Your task to perform on an android device: Open CNN.com Image 0: 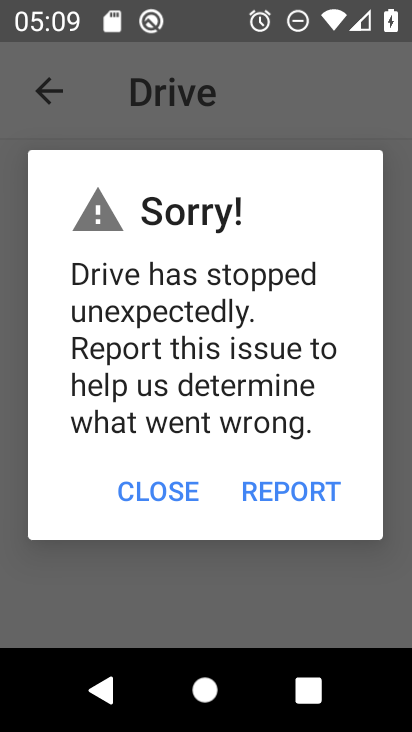
Step 0: press home button
Your task to perform on an android device: Open CNN.com Image 1: 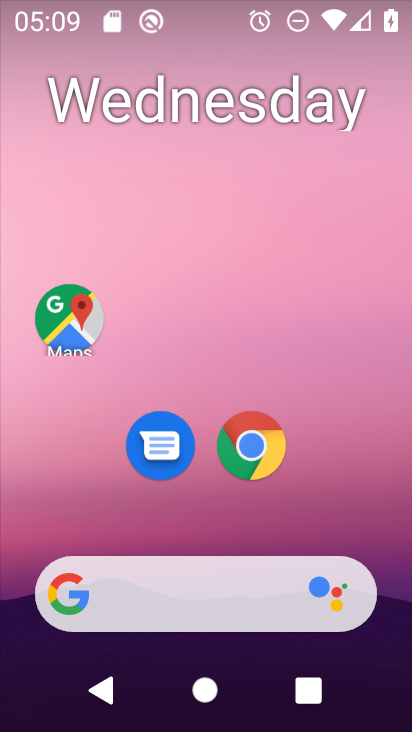
Step 1: click (227, 601)
Your task to perform on an android device: Open CNN.com Image 2: 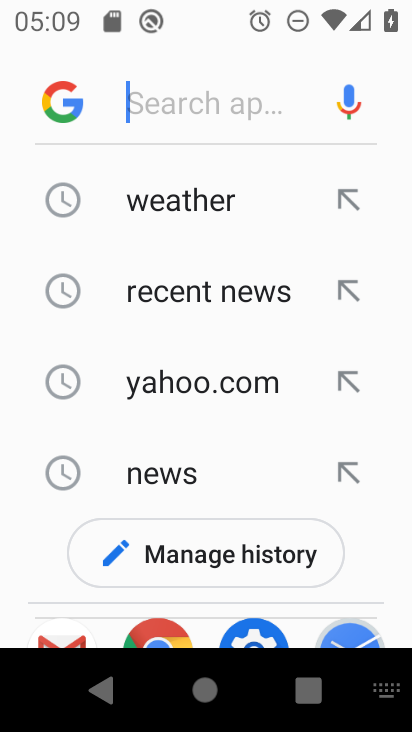
Step 2: type "cnn.com"
Your task to perform on an android device: Open CNN.com Image 3: 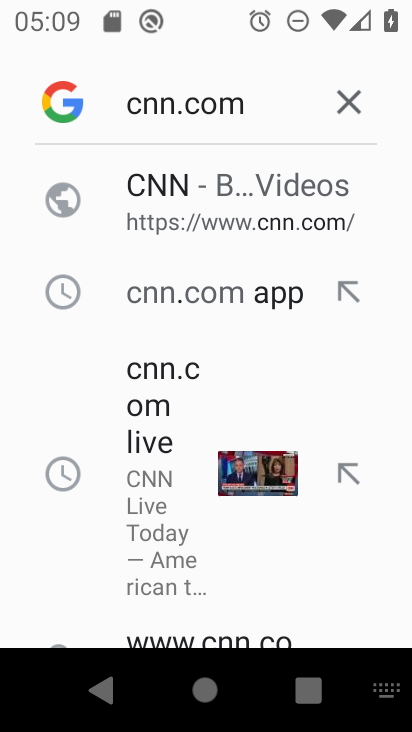
Step 3: click (198, 200)
Your task to perform on an android device: Open CNN.com Image 4: 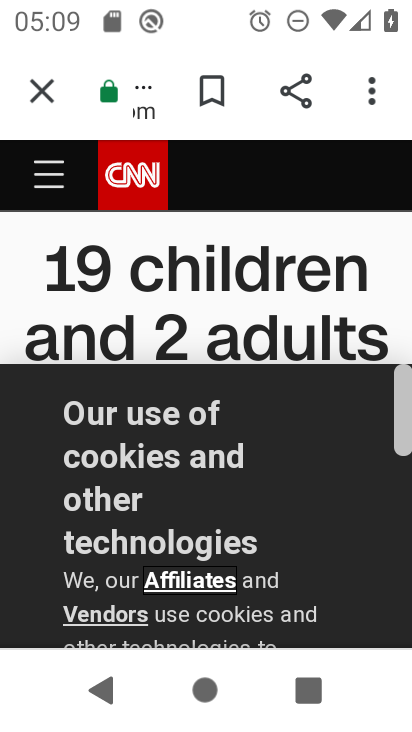
Step 4: task complete